Your task to perform on an android device: turn off notifications settings in the gmail app Image 0: 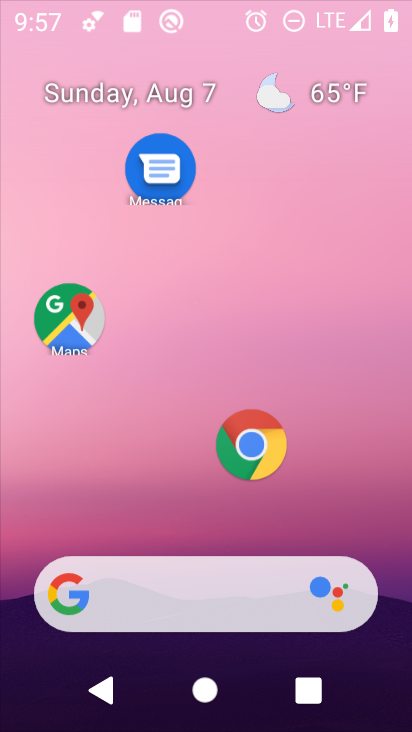
Step 0: press home button
Your task to perform on an android device: turn off notifications settings in the gmail app Image 1: 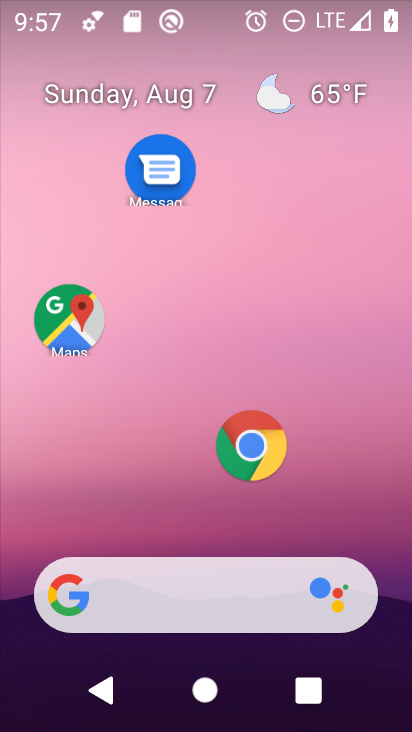
Step 1: drag from (201, 505) to (249, 74)
Your task to perform on an android device: turn off notifications settings in the gmail app Image 2: 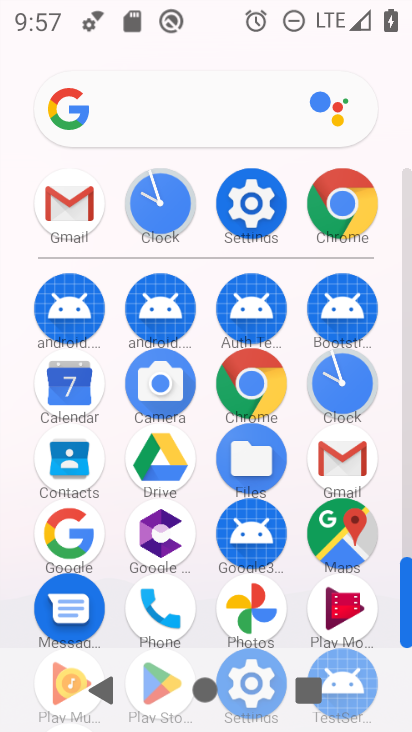
Step 2: click (343, 446)
Your task to perform on an android device: turn off notifications settings in the gmail app Image 3: 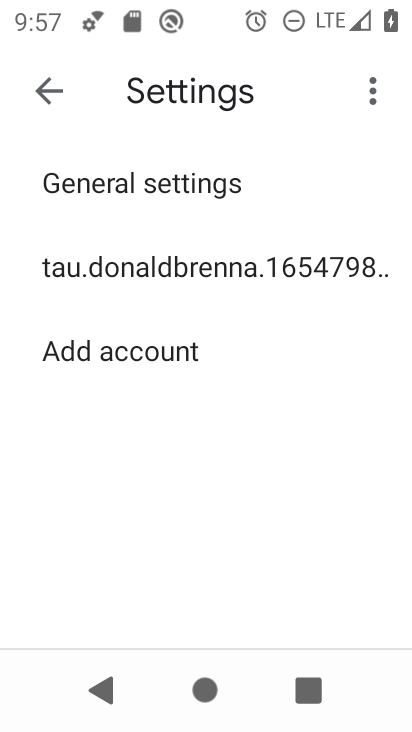
Step 3: click (78, 168)
Your task to perform on an android device: turn off notifications settings in the gmail app Image 4: 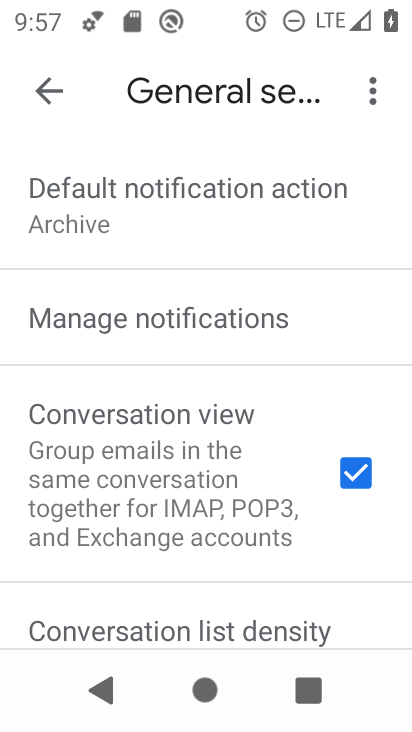
Step 4: click (164, 322)
Your task to perform on an android device: turn off notifications settings in the gmail app Image 5: 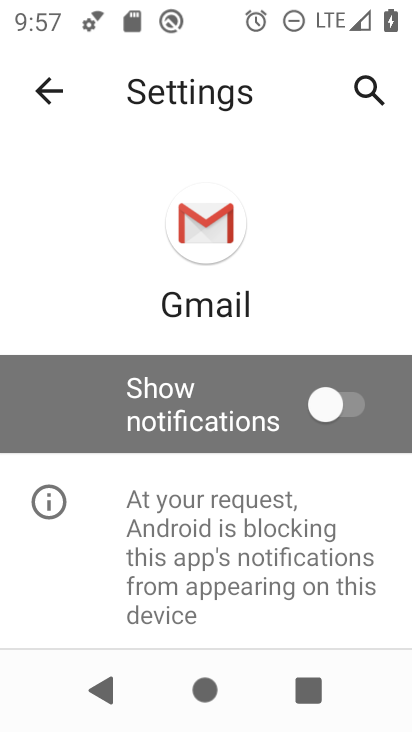
Step 5: task complete